Your task to perform on an android device: set default search engine in the chrome app Image 0: 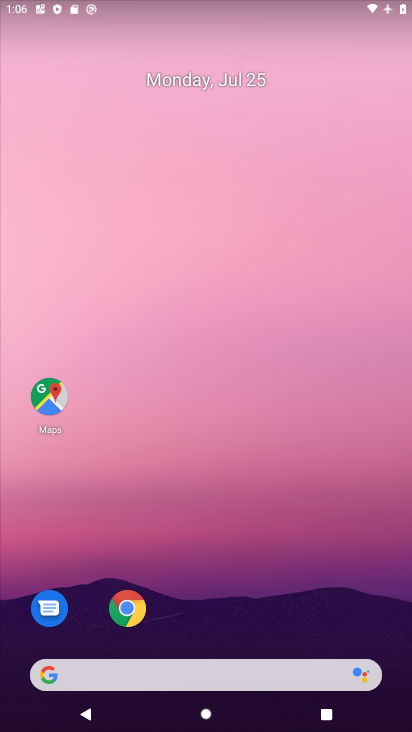
Step 0: drag from (257, 545) to (309, 147)
Your task to perform on an android device: set default search engine in the chrome app Image 1: 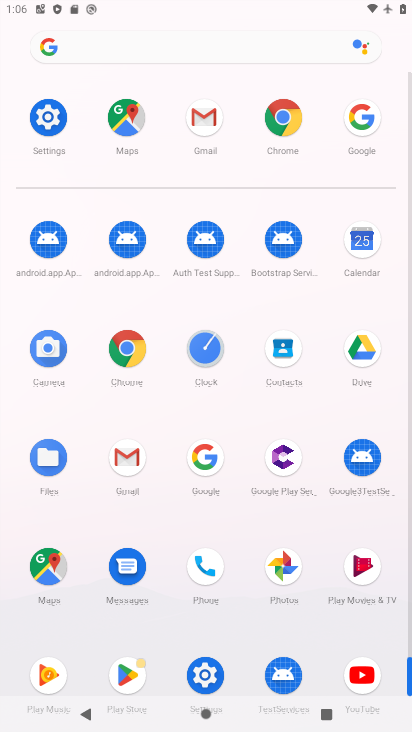
Step 1: click (131, 373)
Your task to perform on an android device: set default search engine in the chrome app Image 2: 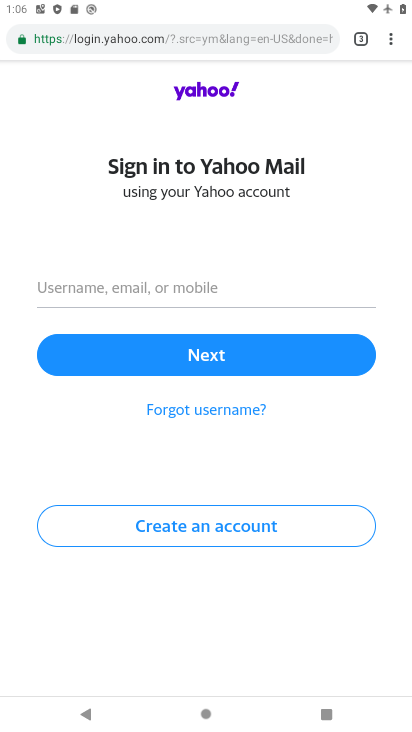
Step 2: click (393, 45)
Your task to perform on an android device: set default search engine in the chrome app Image 3: 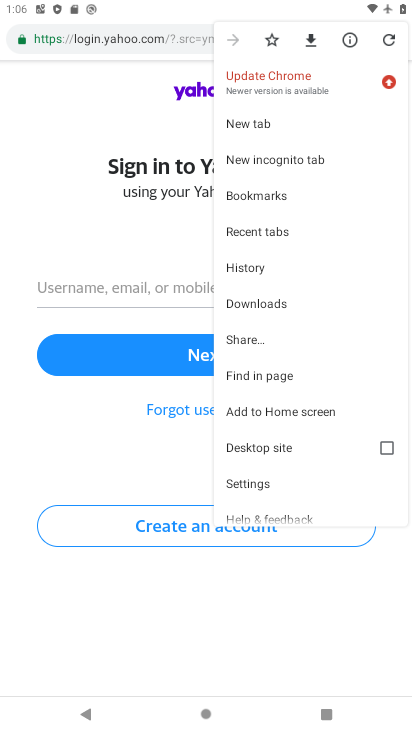
Step 3: click (240, 484)
Your task to perform on an android device: set default search engine in the chrome app Image 4: 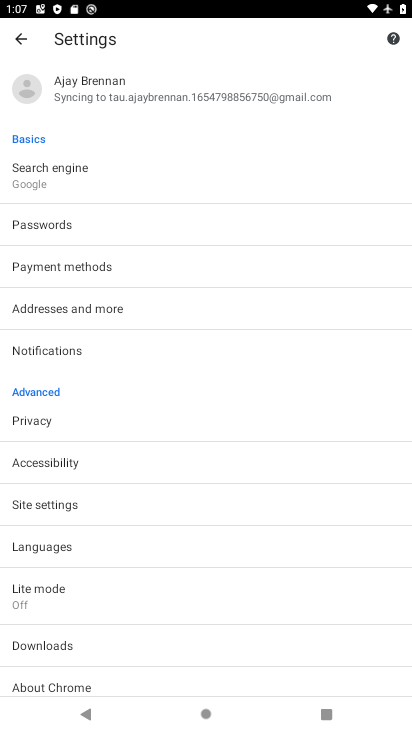
Step 4: click (48, 186)
Your task to perform on an android device: set default search engine in the chrome app Image 5: 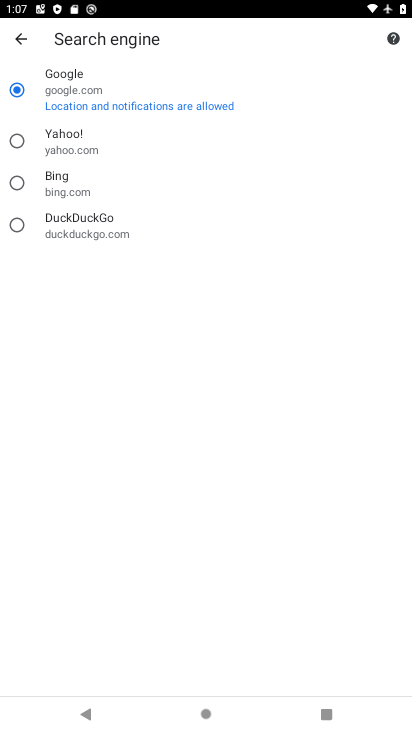
Step 5: task complete